Your task to perform on an android device: check android version Image 0: 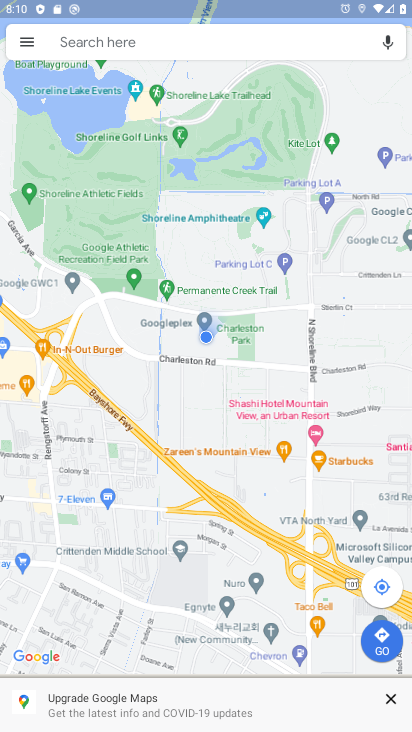
Step 0: press home button
Your task to perform on an android device: check android version Image 1: 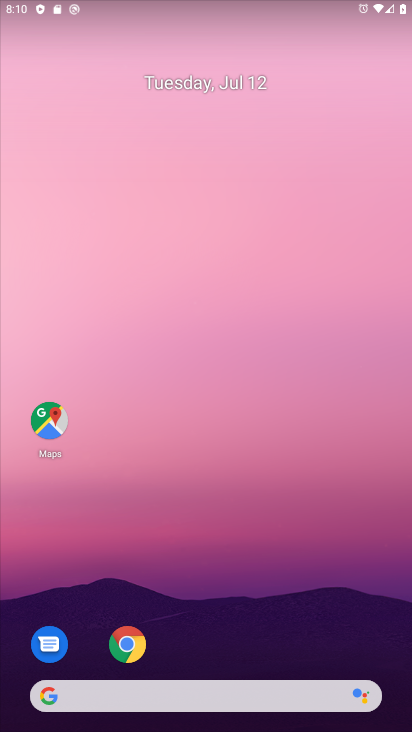
Step 1: drag from (36, 712) to (330, 34)
Your task to perform on an android device: check android version Image 2: 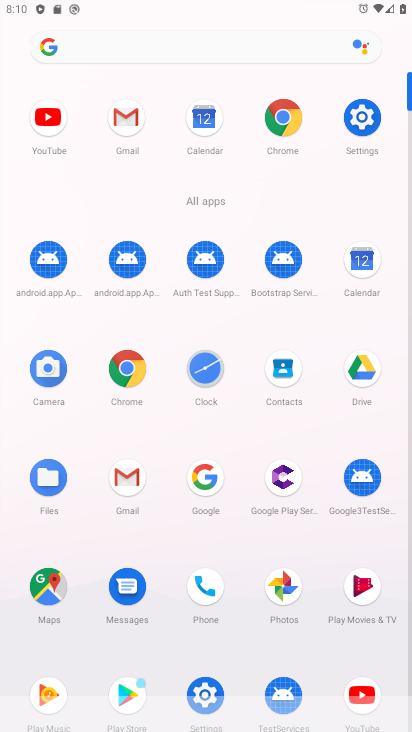
Step 2: click (204, 688)
Your task to perform on an android device: check android version Image 3: 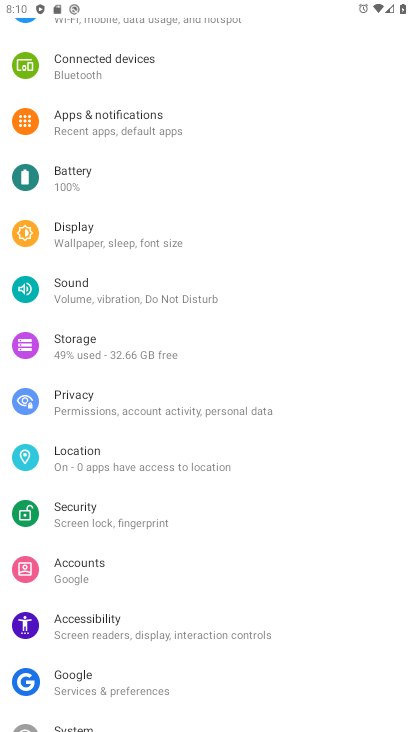
Step 3: drag from (188, 678) to (194, 222)
Your task to perform on an android device: check android version Image 4: 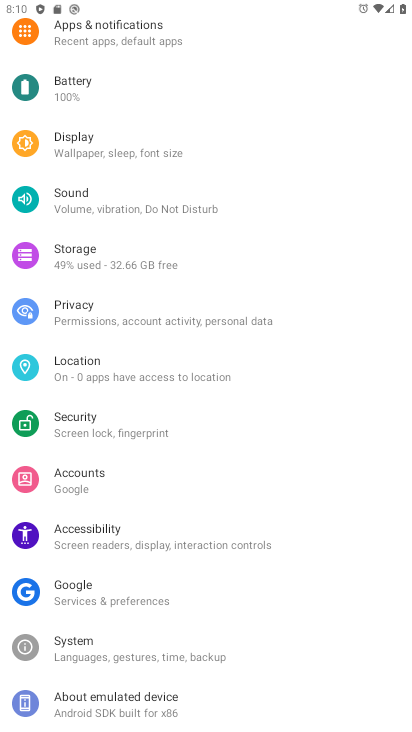
Step 4: click (122, 706)
Your task to perform on an android device: check android version Image 5: 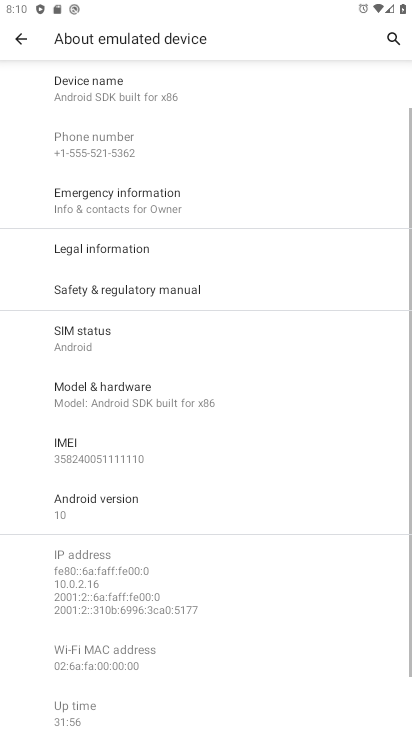
Step 5: click (96, 506)
Your task to perform on an android device: check android version Image 6: 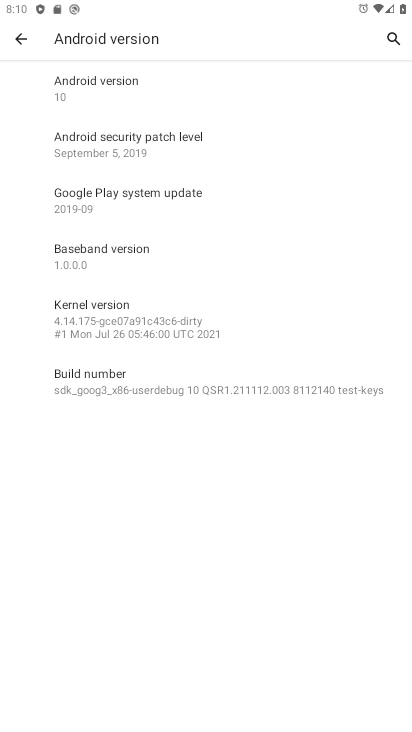
Step 6: task complete